Your task to perform on an android device: Open the calendar and show me this week's events? Image 0: 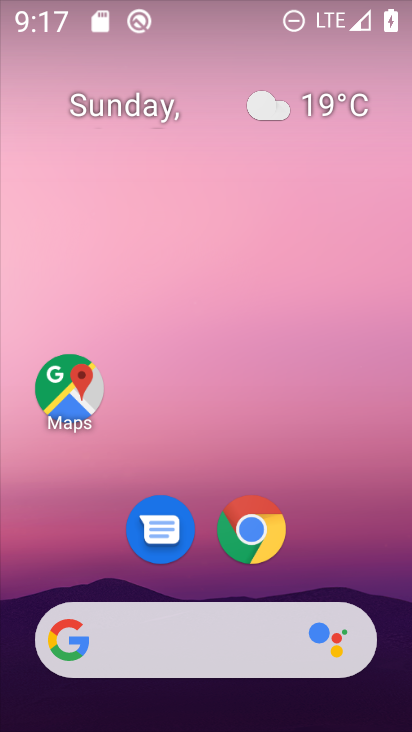
Step 0: press home button
Your task to perform on an android device: Open the calendar and show me this week's events? Image 1: 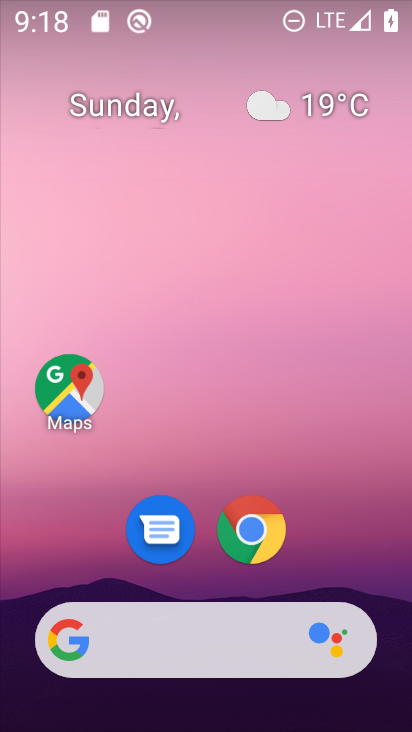
Step 1: drag from (211, 582) to (210, 19)
Your task to perform on an android device: Open the calendar and show me this week's events? Image 2: 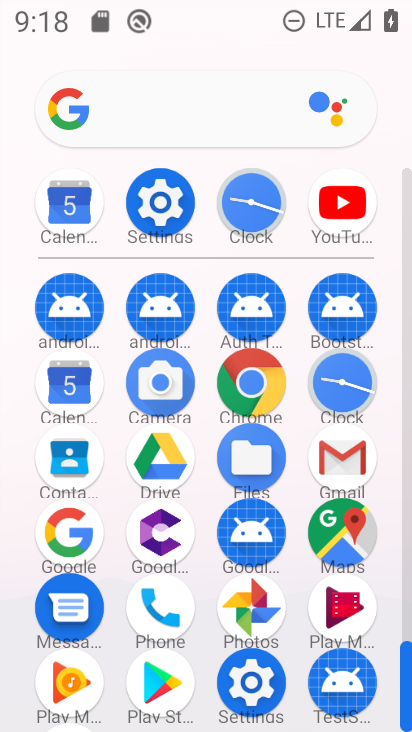
Step 2: click (67, 379)
Your task to perform on an android device: Open the calendar and show me this week's events? Image 3: 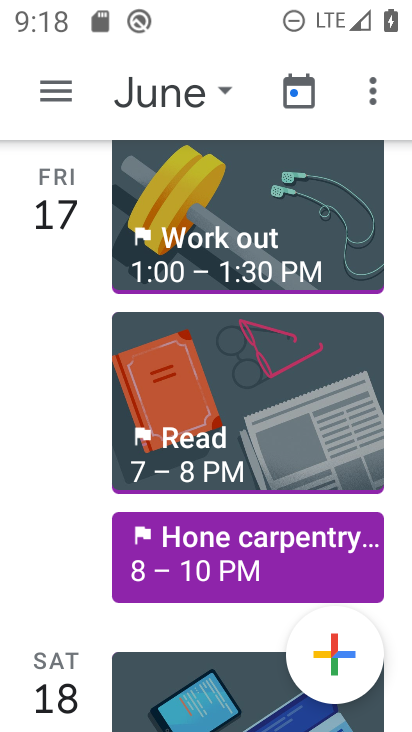
Step 3: click (216, 83)
Your task to perform on an android device: Open the calendar and show me this week's events? Image 4: 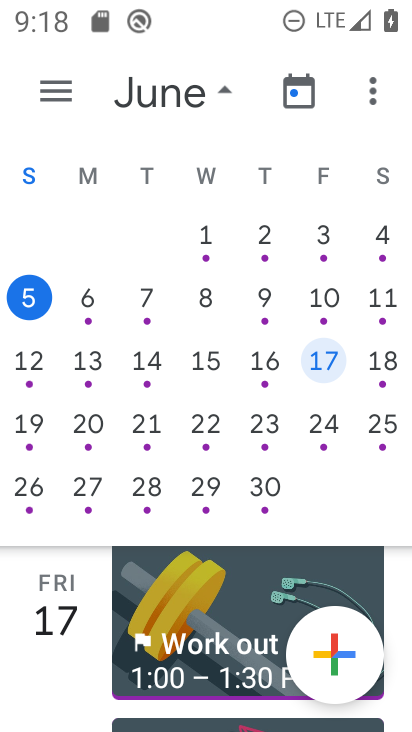
Step 4: click (38, 287)
Your task to perform on an android device: Open the calendar and show me this week's events? Image 5: 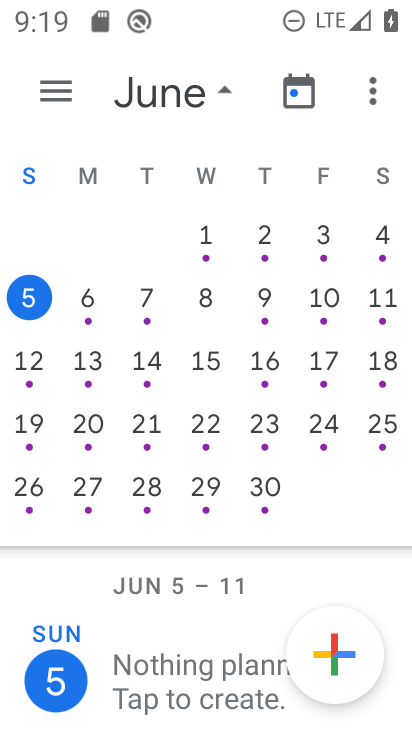
Step 5: click (224, 88)
Your task to perform on an android device: Open the calendar and show me this week's events? Image 6: 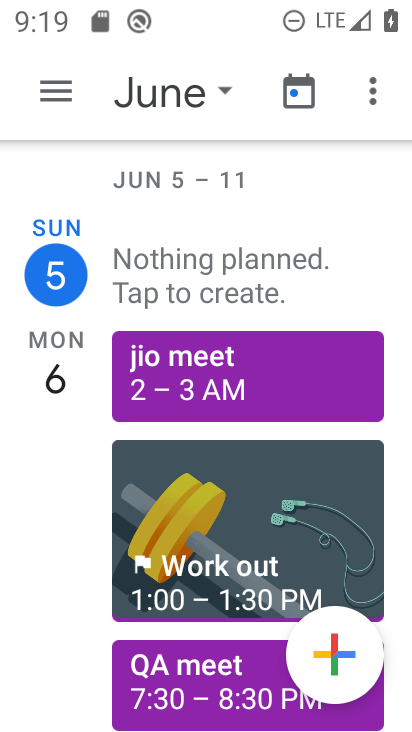
Step 6: drag from (77, 559) to (87, 396)
Your task to perform on an android device: Open the calendar and show me this week's events? Image 7: 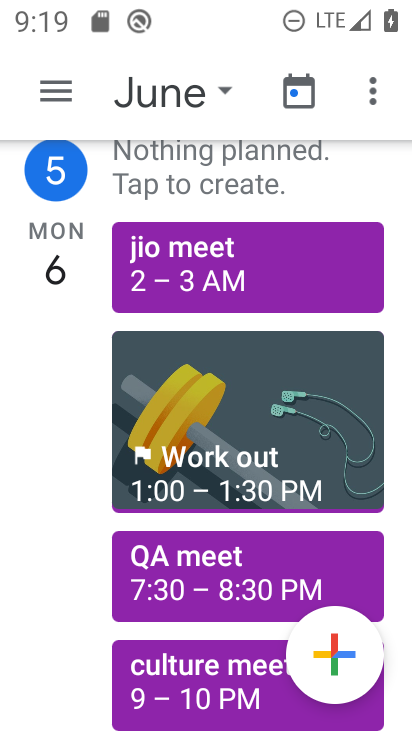
Step 7: drag from (94, 209) to (98, 124)
Your task to perform on an android device: Open the calendar and show me this week's events? Image 8: 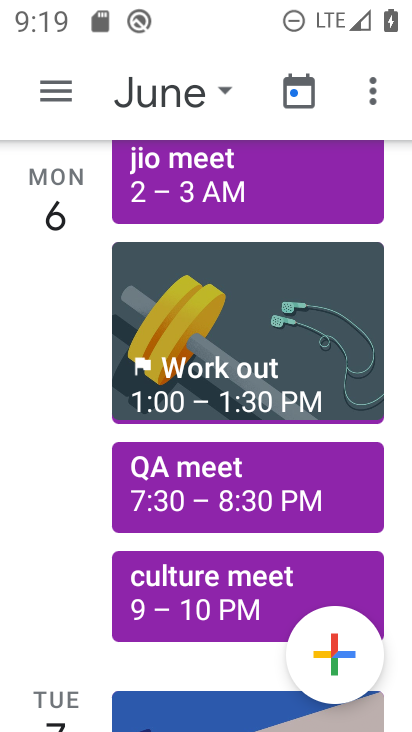
Step 8: drag from (80, 655) to (95, 181)
Your task to perform on an android device: Open the calendar and show me this week's events? Image 9: 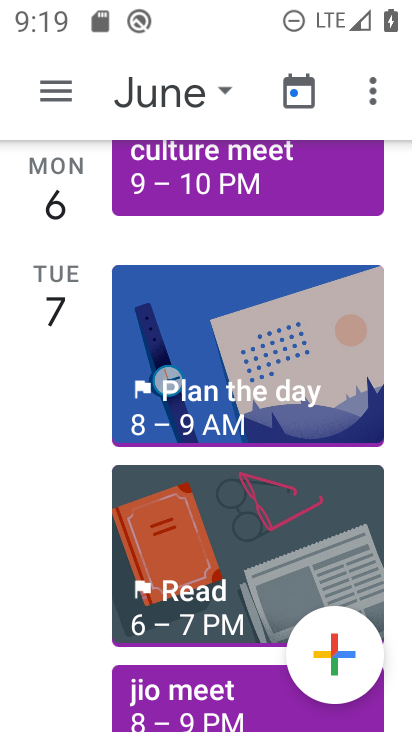
Step 9: click (95, 142)
Your task to perform on an android device: Open the calendar and show me this week's events? Image 10: 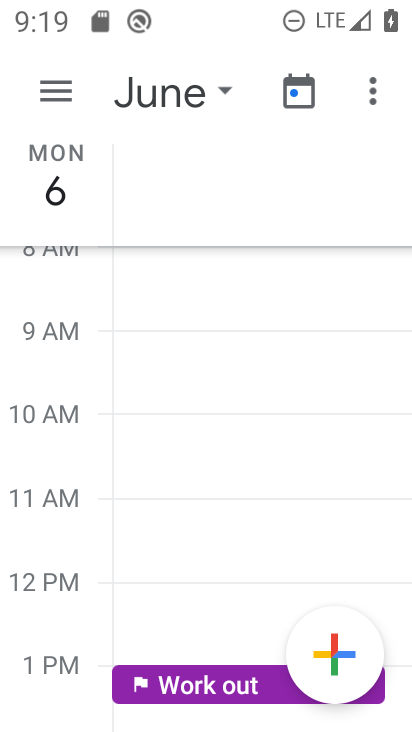
Step 10: click (69, 202)
Your task to perform on an android device: Open the calendar and show me this week's events? Image 11: 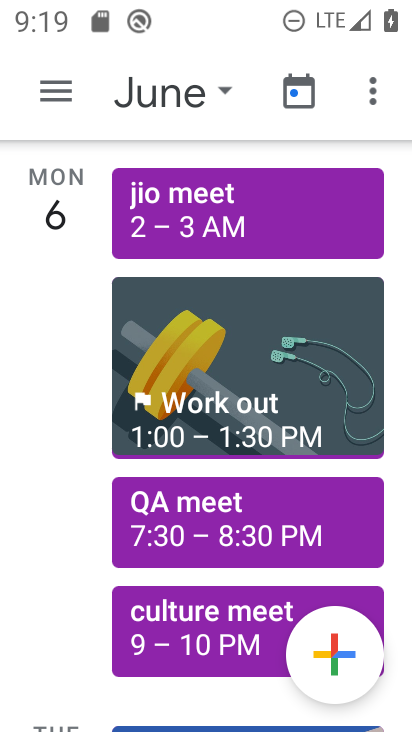
Step 11: drag from (79, 672) to (102, 146)
Your task to perform on an android device: Open the calendar and show me this week's events? Image 12: 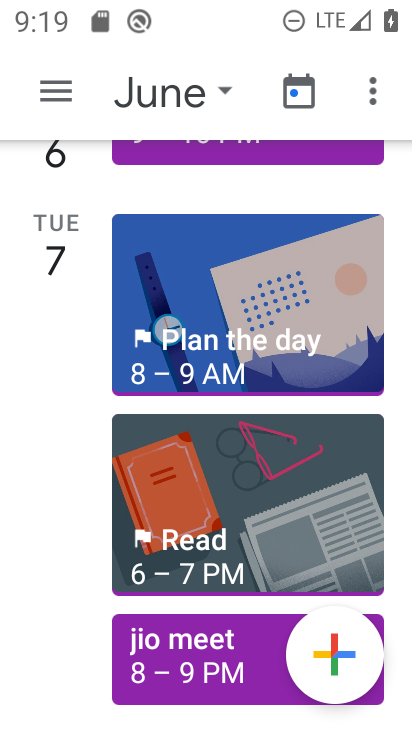
Step 12: drag from (73, 662) to (86, 157)
Your task to perform on an android device: Open the calendar and show me this week's events? Image 13: 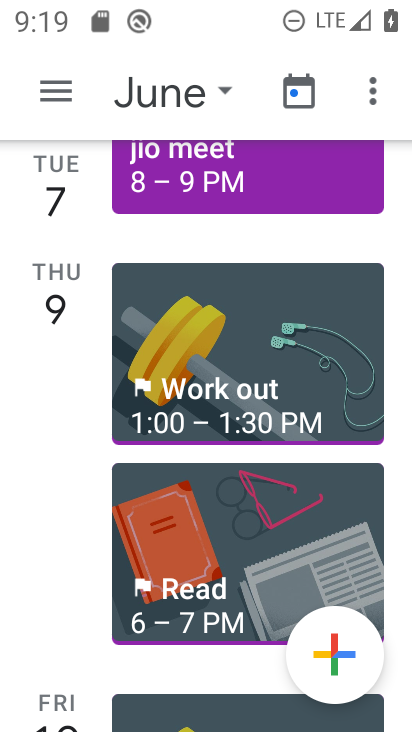
Step 13: drag from (73, 634) to (97, 157)
Your task to perform on an android device: Open the calendar and show me this week's events? Image 14: 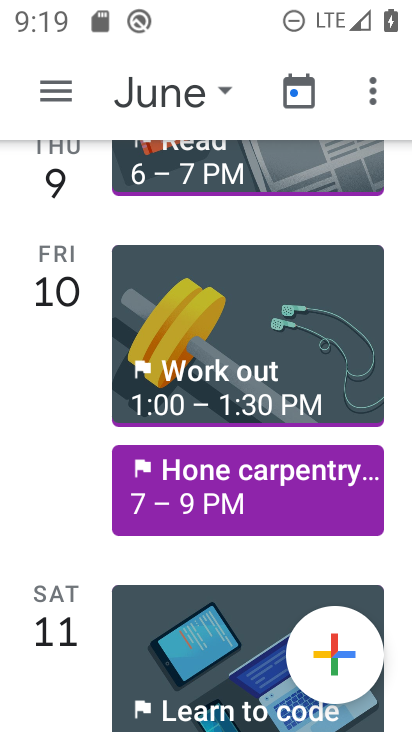
Step 14: click (97, 120)
Your task to perform on an android device: Open the calendar and show me this week's events? Image 15: 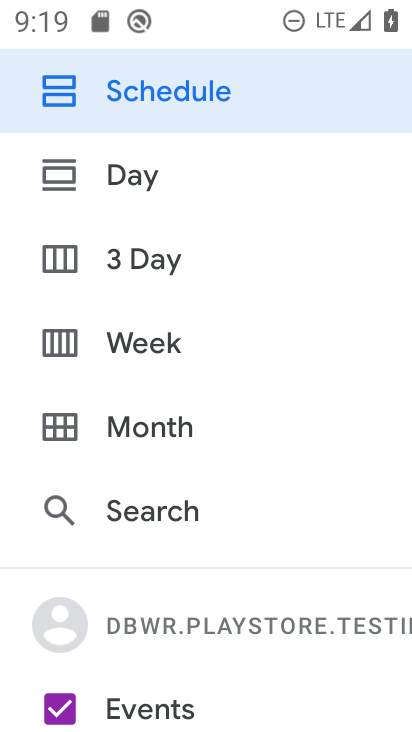
Step 15: click (118, 99)
Your task to perform on an android device: Open the calendar and show me this week's events? Image 16: 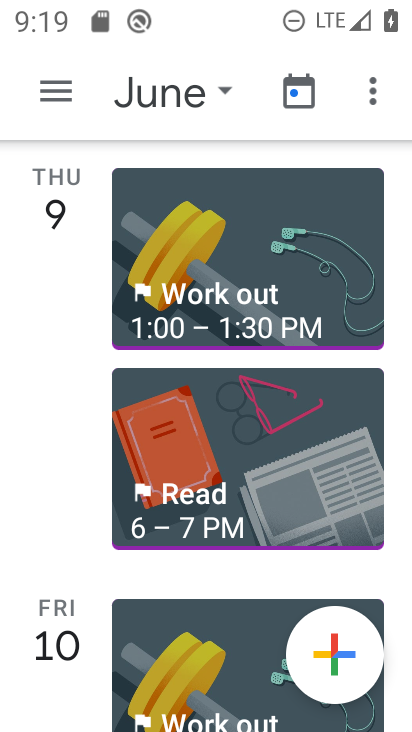
Step 16: task complete